Your task to perform on an android device: toggle notifications settings in the gmail app Image 0: 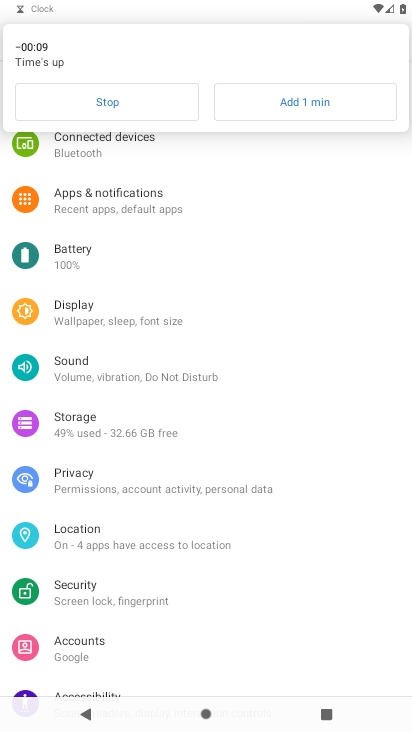
Step 0: click (146, 201)
Your task to perform on an android device: toggle notifications settings in the gmail app Image 1: 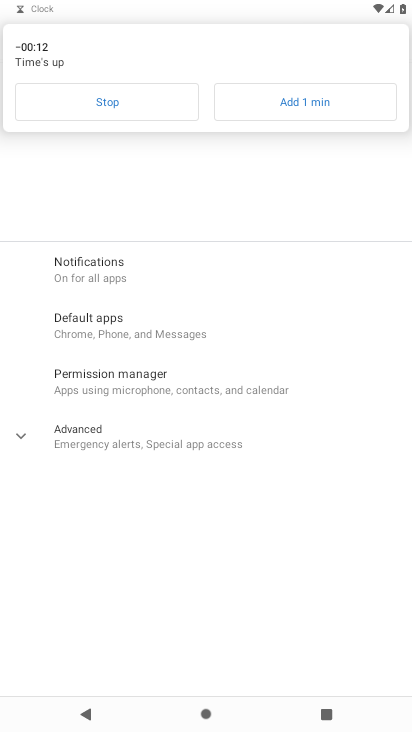
Step 1: click (139, 114)
Your task to perform on an android device: toggle notifications settings in the gmail app Image 2: 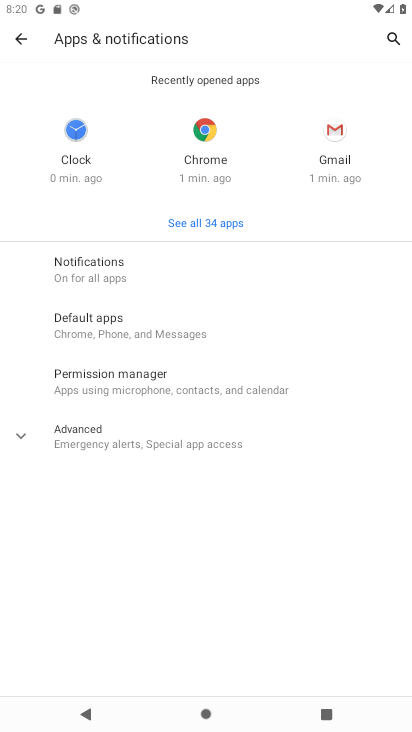
Step 2: click (336, 164)
Your task to perform on an android device: toggle notifications settings in the gmail app Image 3: 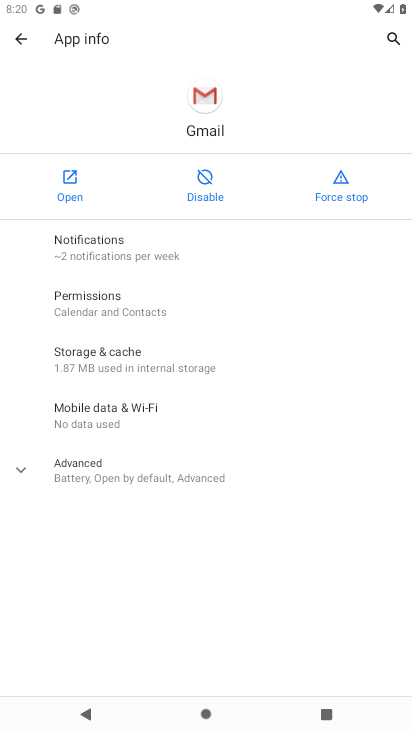
Step 3: click (144, 255)
Your task to perform on an android device: toggle notifications settings in the gmail app Image 4: 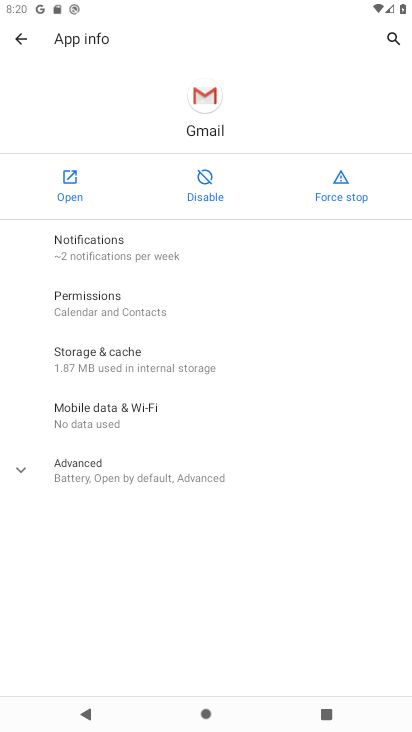
Step 4: click (144, 255)
Your task to perform on an android device: toggle notifications settings in the gmail app Image 5: 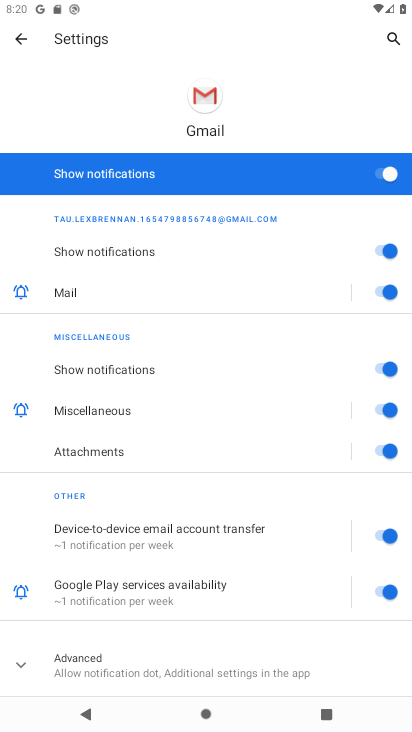
Step 5: click (383, 172)
Your task to perform on an android device: toggle notifications settings in the gmail app Image 6: 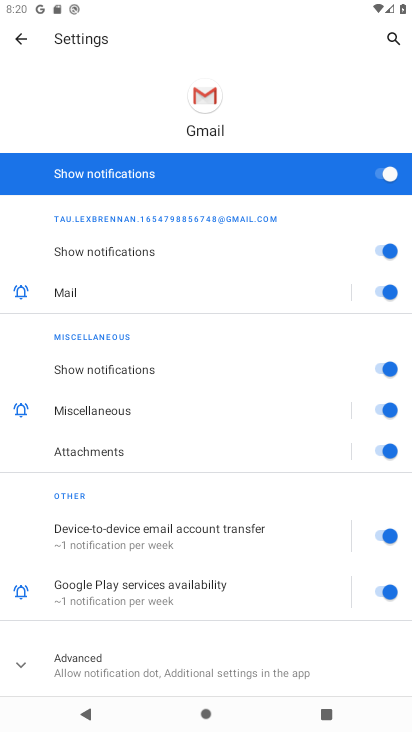
Step 6: click (383, 172)
Your task to perform on an android device: toggle notifications settings in the gmail app Image 7: 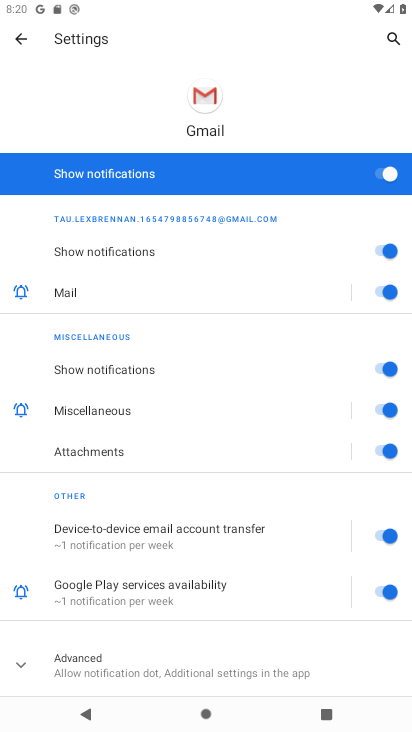
Step 7: click (383, 172)
Your task to perform on an android device: toggle notifications settings in the gmail app Image 8: 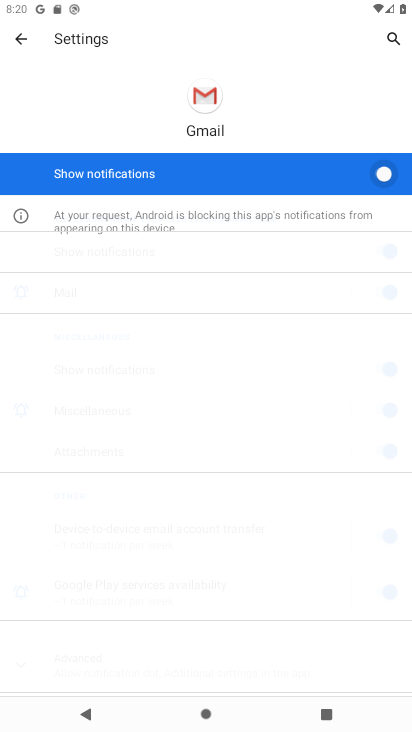
Step 8: click (383, 172)
Your task to perform on an android device: toggle notifications settings in the gmail app Image 9: 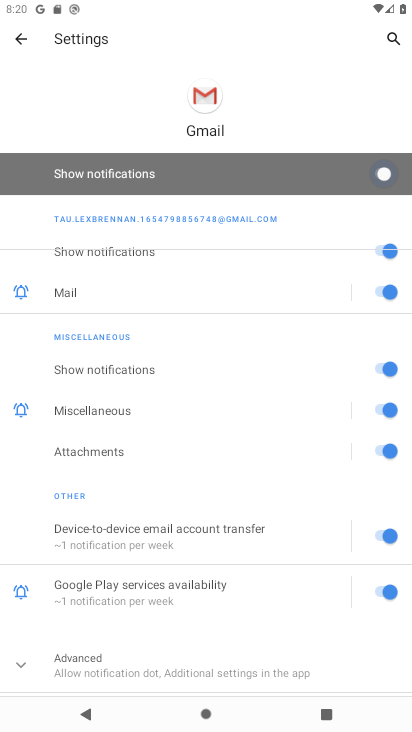
Step 9: click (383, 172)
Your task to perform on an android device: toggle notifications settings in the gmail app Image 10: 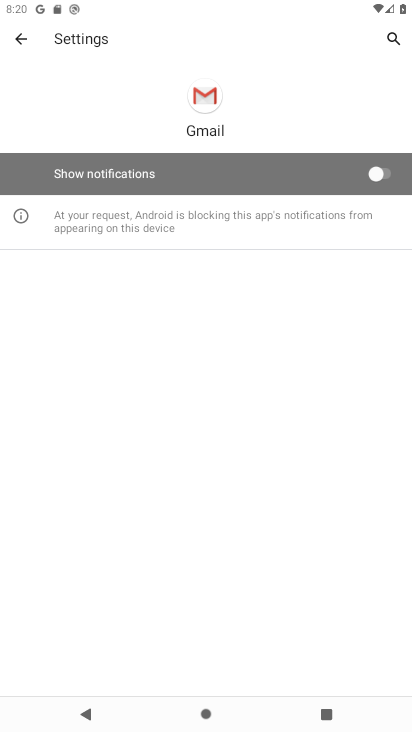
Step 10: click (383, 172)
Your task to perform on an android device: toggle notifications settings in the gmail app Image 11: 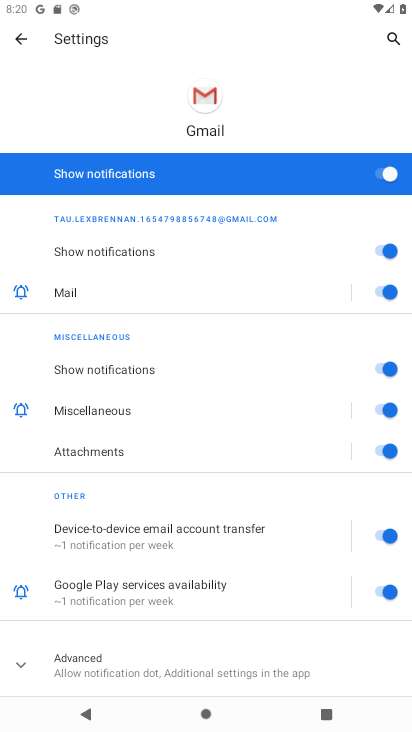
Step 11: task complete